Your task to perform on an android device: Go to eBay Image 0: 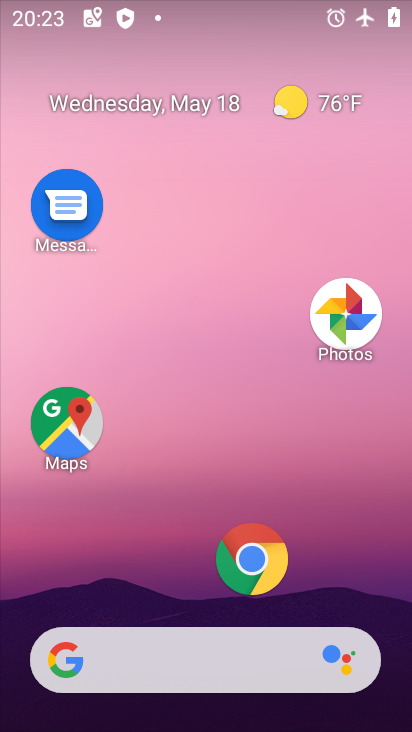
Step 0: click (249, 591)
Your task to perform on an android device: Go to eBay Image 1: 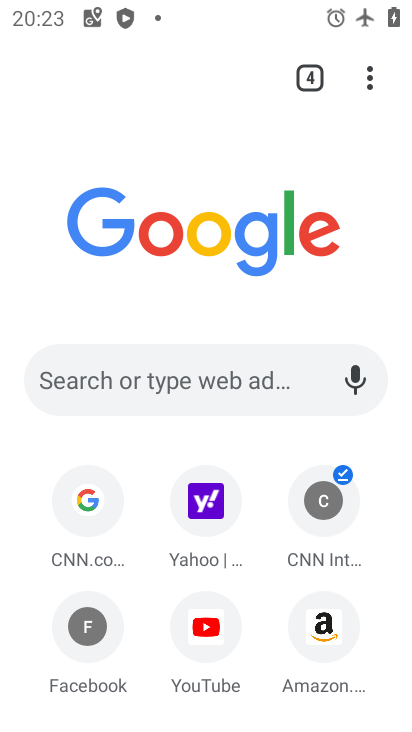
Step 1: click (223, 376)
Your task to perform on an android device: Go to eBay Image 2: 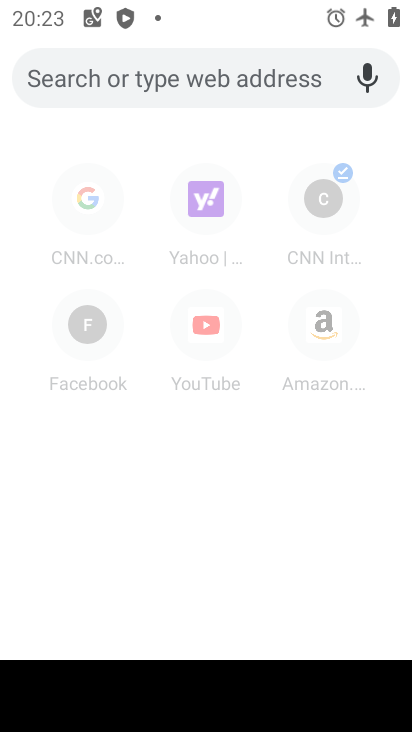
Step 2: type "ebay"
Your task to perform on an android device: Go to eBay Image 3: 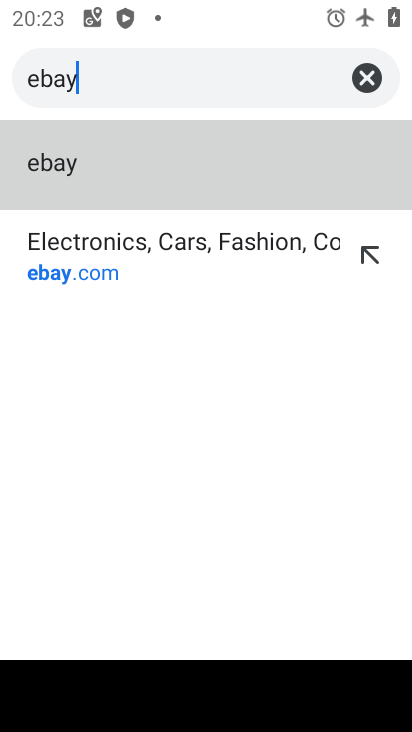
Step 3: type ""
Your task to perform on an android device: Go to eBay Image 4: 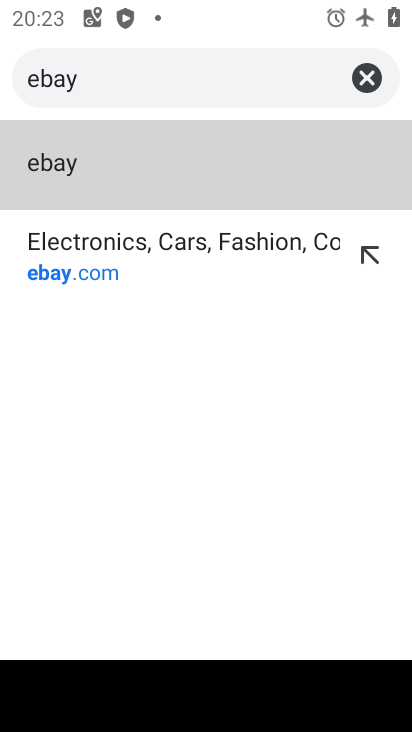
Step 4: click (123, 280)
Your task to perform on an android device: Go to eBay Image 5: 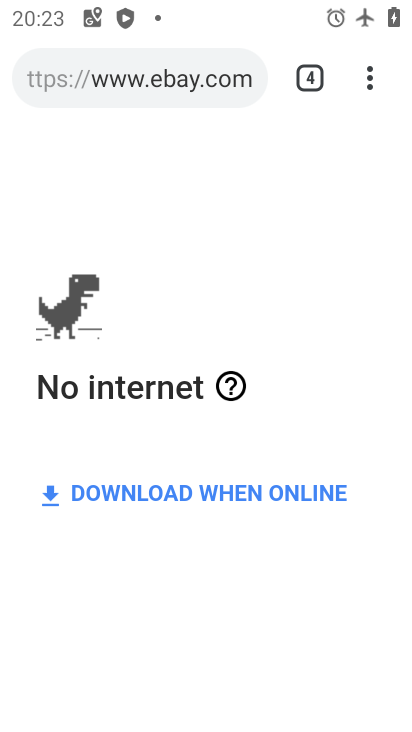
Step 5: task complete